Your task to perform on an android device: empty trash in the gmail app Image 0: 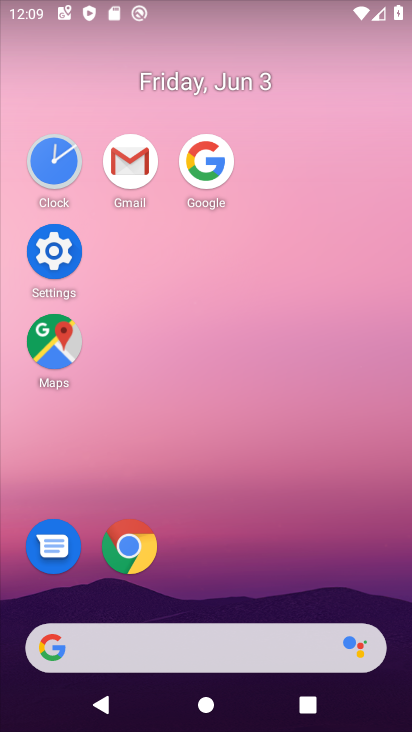
Step 0: click (128, 157)
Your task to perform on an android device: empty trash in the gmail app Image 1: 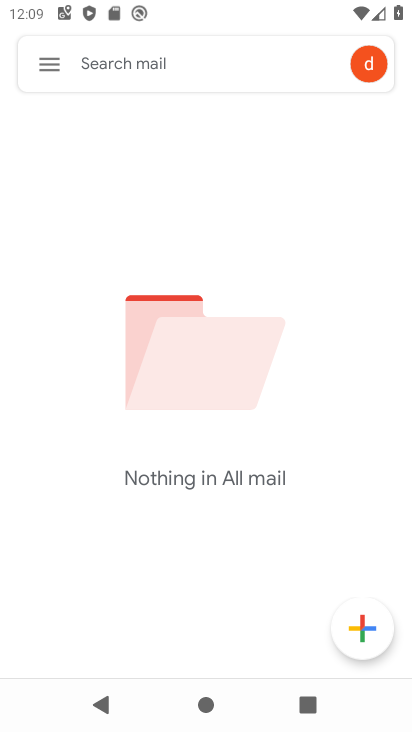
Step 1: click (44, 76)
Your task to perform on an android device: empty trash in the gmail app Image 2: 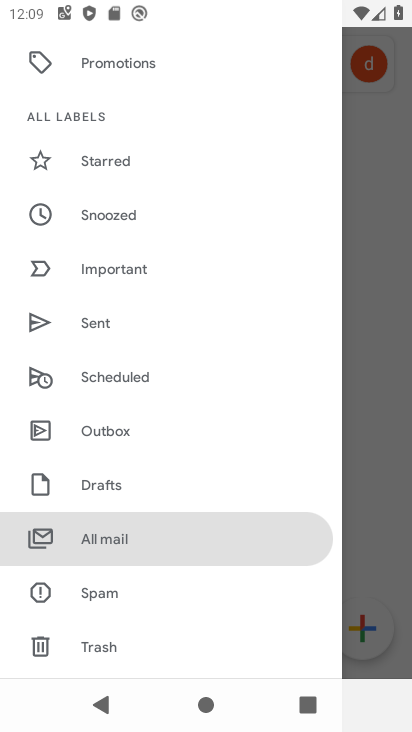
Step 2: click (127, 645)
Your task to perform on an android device: empty trash in the gmail app Image 3: 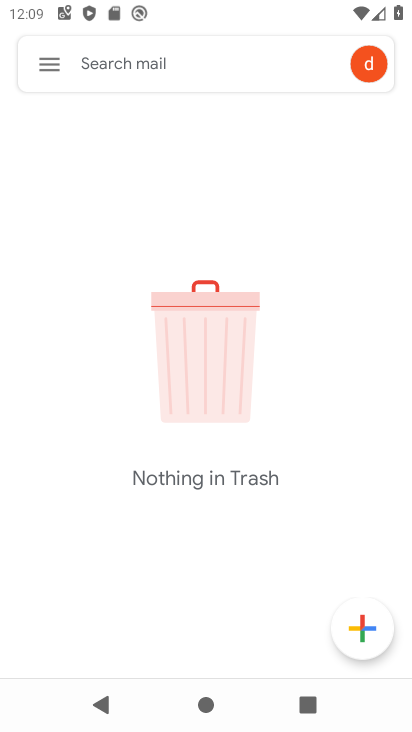
Step 3: task complete